Your task to perform on an android device: delete a single message in the gmail app Image 0: 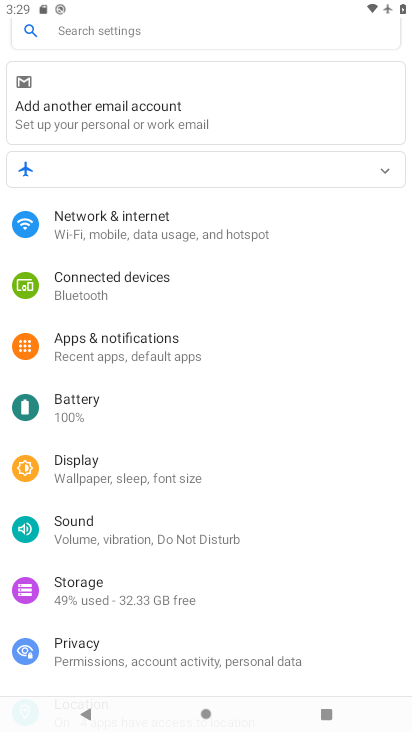
Step 0: press home button
Your task to perform on an android device: delete a single message in the gmail app Image 1: 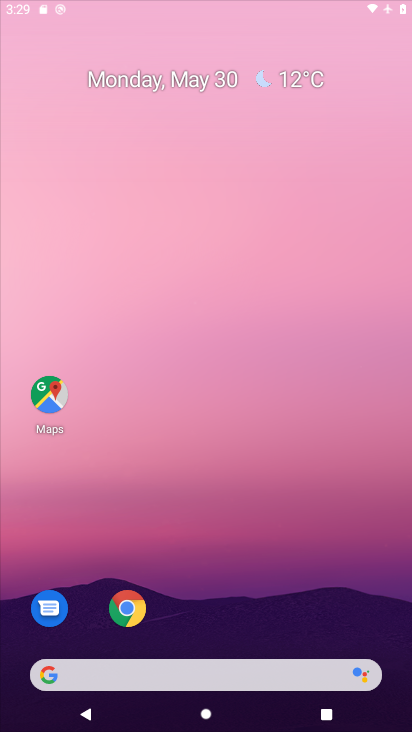
Step 1: drag from (285, 533) to (176, 6)
Your task to perform on an android device: delete a single message in the gmail app Image 2: 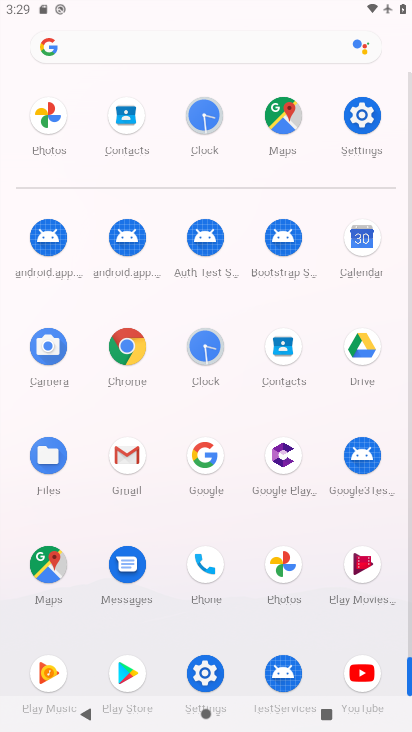
Step 2: click (126, 457)
Your task to perform on an android device: delete a single message in the gmail app Image 3: 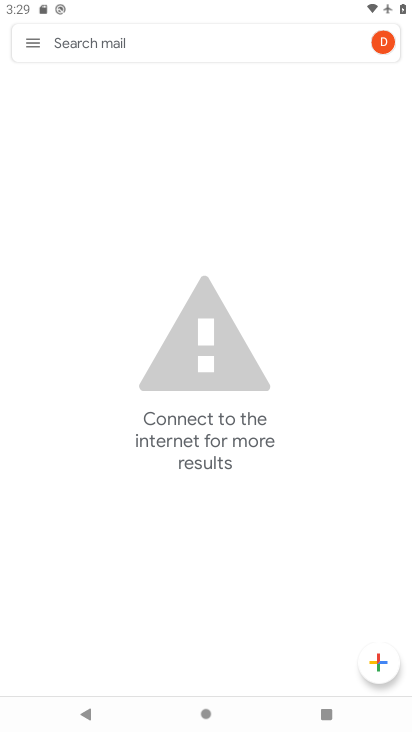
Step 3: click (27, 42)
Your task to perform on an android device: delete a single message in the gmail app Image 4: 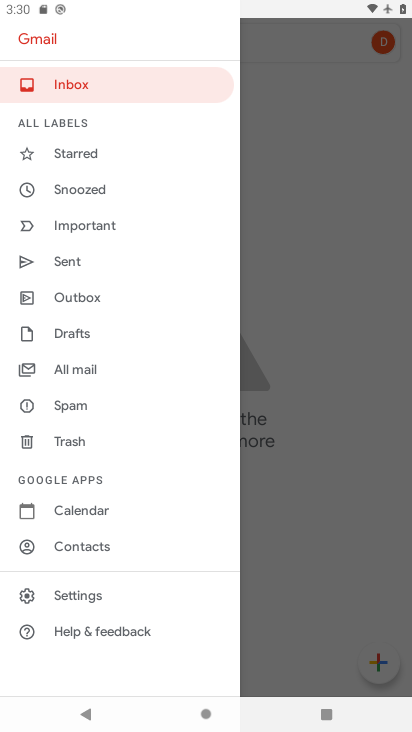
Step 4: click (94, 371)
Your task to perform on an android device: delete a single message in the gmail app Image 5: 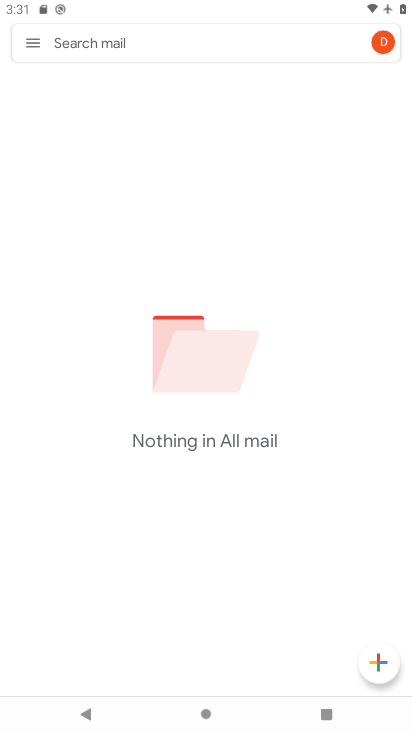
Step 5: task complete